Your task to perform on an android device: Open calendar and show me the second week of next month Image 0: 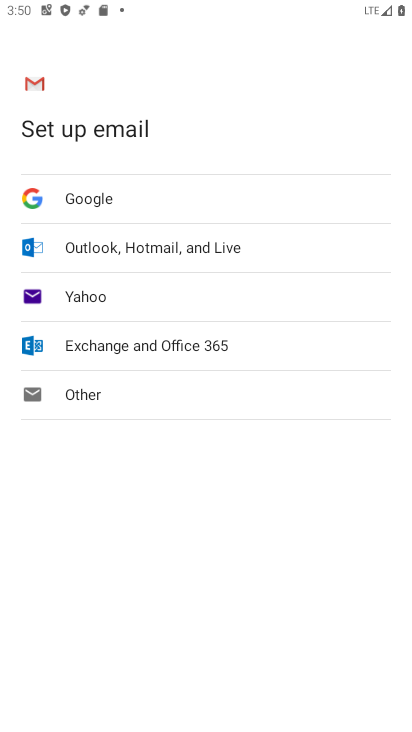
Step 0: press home button
Your task to perform on an android device: Open calendar and show me the second week of next month Image 1: 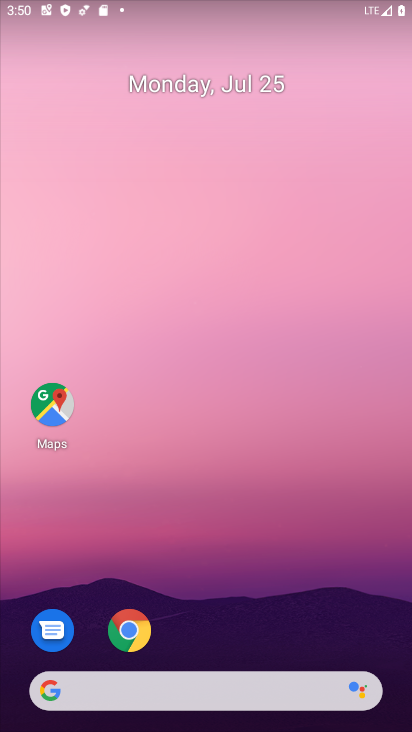
Step 1: drag from (279, 615) to (409, 238)
Your task to perform on an android device: Open calendar and show me the second week of next month Image 2: 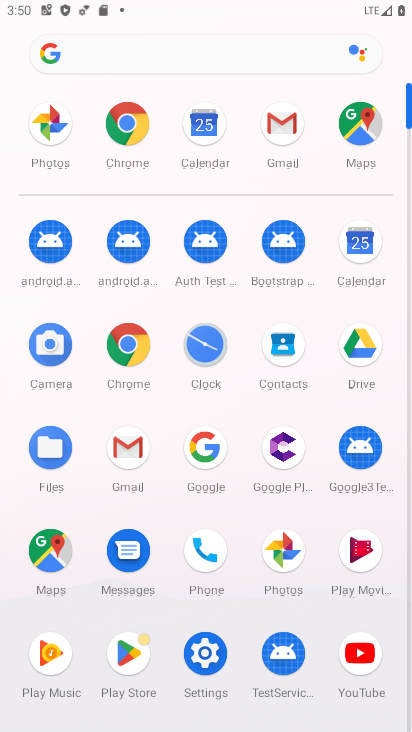
Step 2: click (354, 247)
Your task to perform on an android device: Open calendar and show me the second week of next month Image 3: 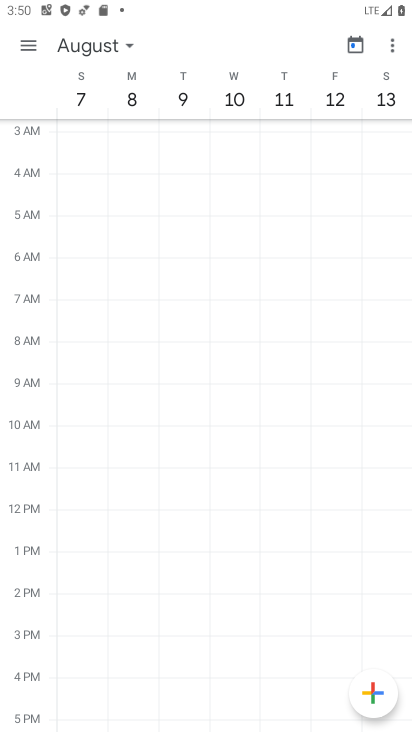
Step 3: task complete